Your task to perform on an android device: turn on improve location accuracy Image 0: 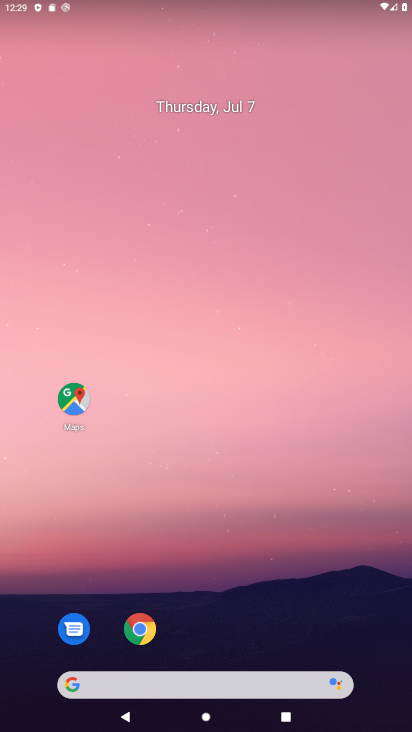
Step 0: drag from (226, 621) to (194, 163)
Your task to perform on an android device: turn on improve location accuracy Image 1: 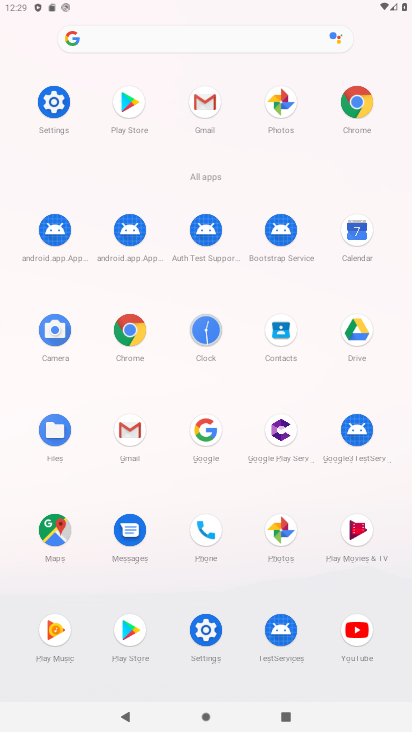
Step 1: click (53, 102)
Your task to perform on an android device: turn on improve location accuracy Image 2: 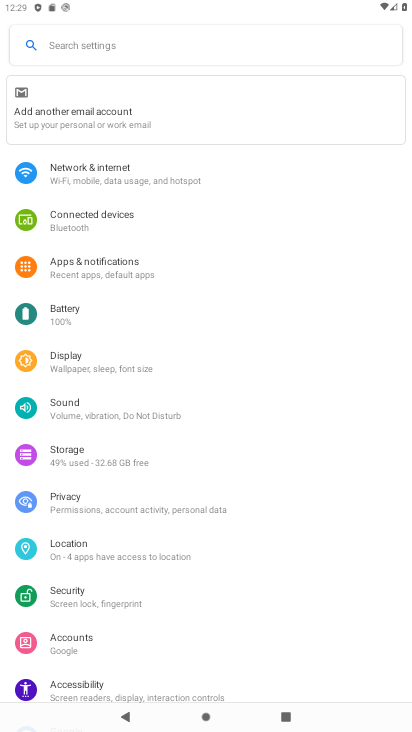
Step 2: click (103, 548)
Your task to perform on an android device: turn on improve location accuracy Image 3: 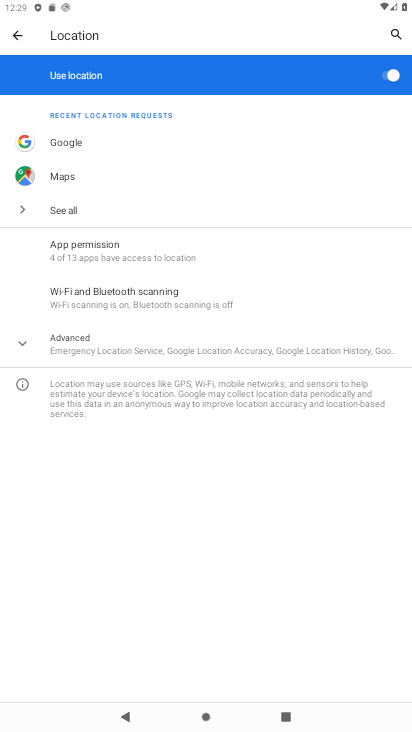
Step 3: click (92, 350)
Your task to perform on an android device: turn on improve location accuracy Image 4: 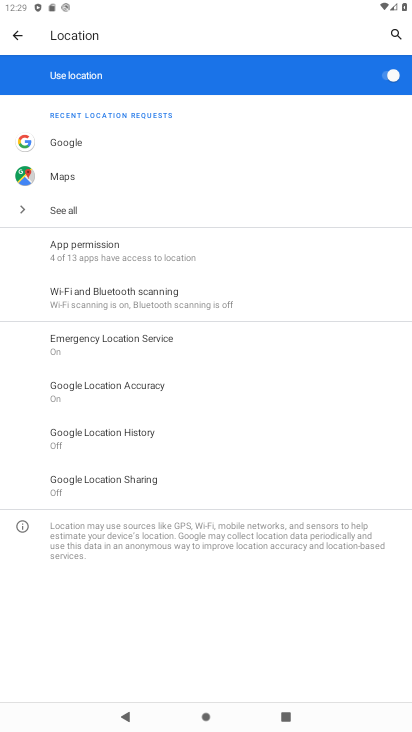
Step 4: click (148, 387)
Your task to perform on an android device: turn on improve location accuracy Image 5: 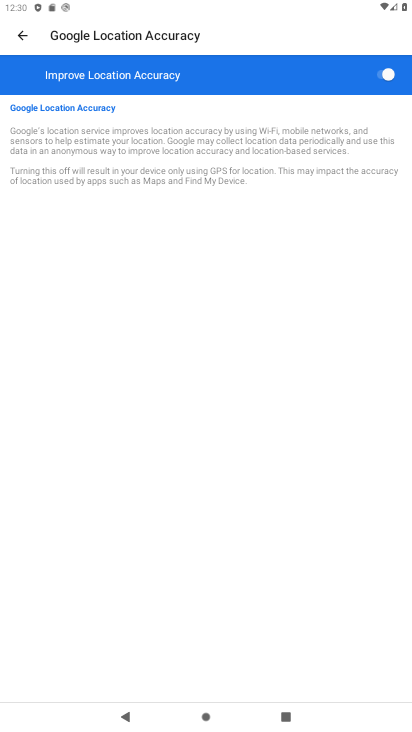
Step 5: task complete